Your task to perform on an android device: Open sound settings Image 0: 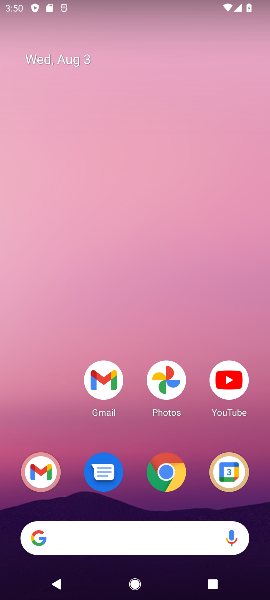
Step 0: drag from (207, 508) to (104, 66)
Your task to perform on an android device: Open sound settings Image 1: 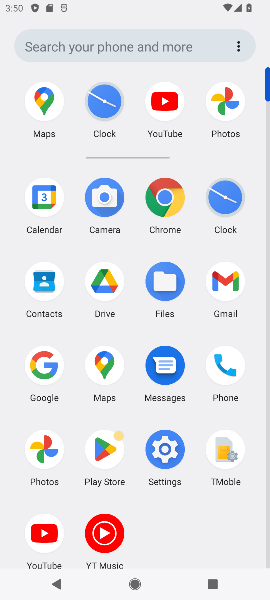
Step 1: click (158, 465)
Your task to perform on an android device: Open sound settings Image 2: 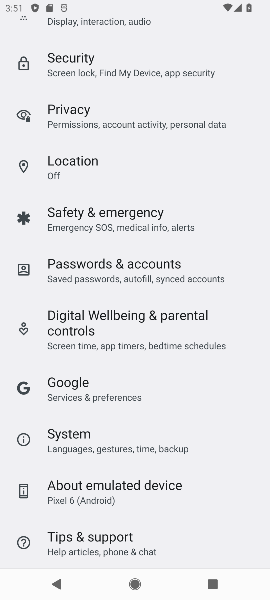
Step 2: drag from (87, 455) to (138, 125)
Your task to perform on an android device: Open sound settings Image 3: 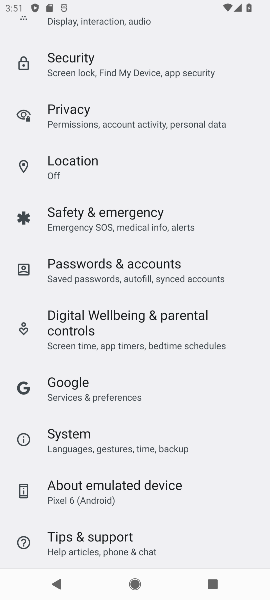
Step 3: drag from (119, 98) to (90, 513)
Your task to perform on an android device: Open sound settings Image 4: 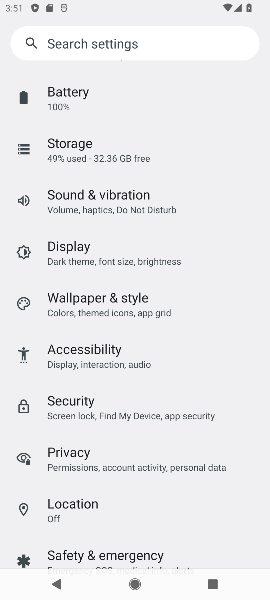
Step 4: click (91, 199)
Your task to perform on an android device: Open sound settings Image 5: 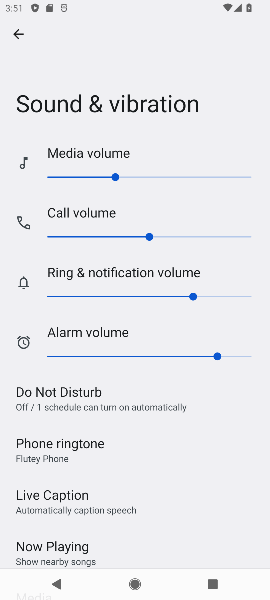
Step 5: task complete